Your task to perform on an android device: Go to display settings Image 0: 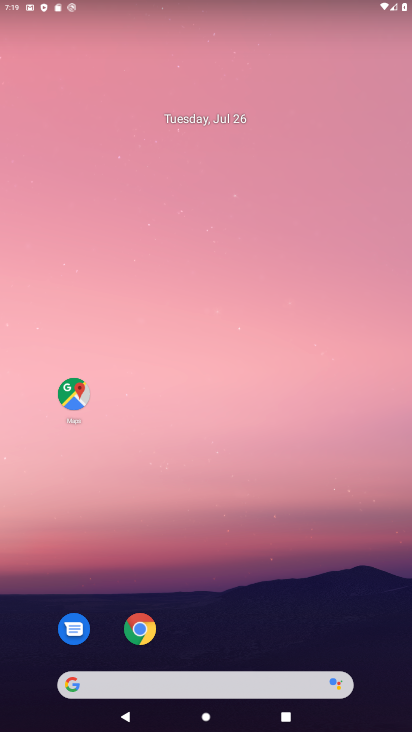
Step 0: drag from (240, 634) to (92, 8)
Your task to perform on an android device: Go to display settings Image 1: 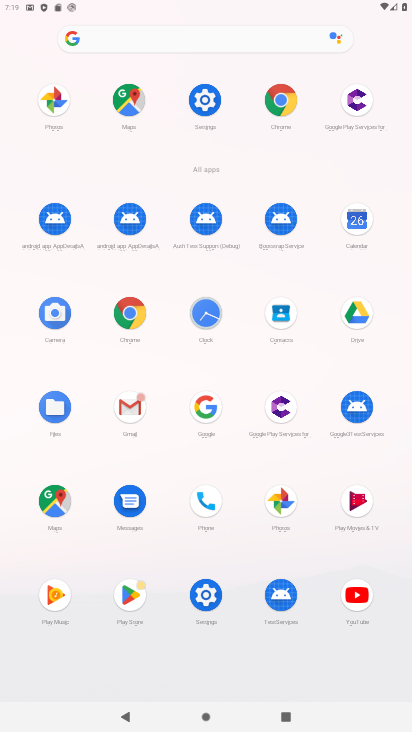
Step 1: click (214, 599)
Your task to perform on an android device: Go to display settings Image 2: 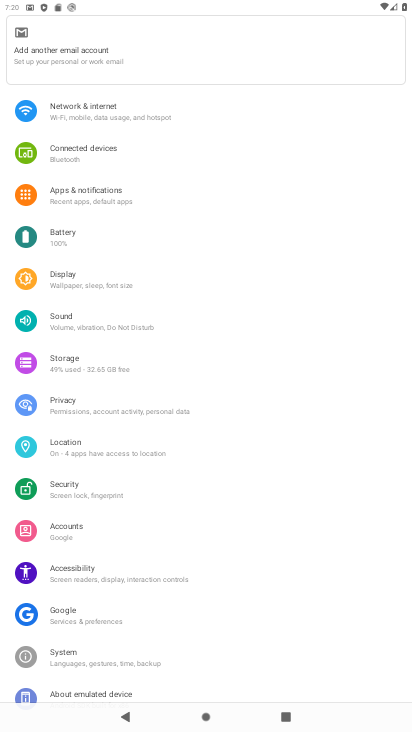
Step 2: click (85, 286)
Your task to perform on an android device: Go to display settings Image 3: 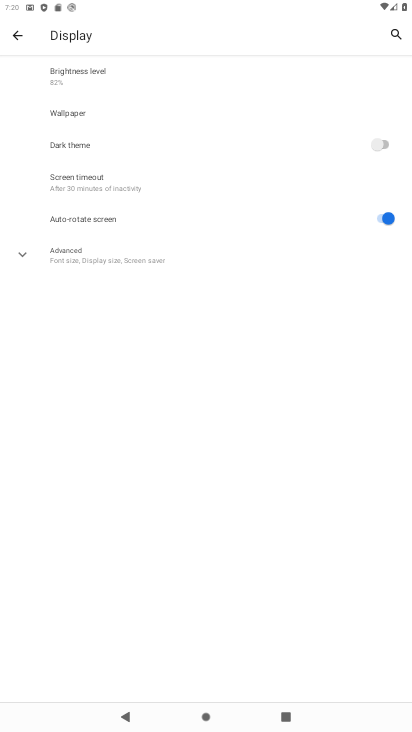
Step 3: task complete